Your task to perform on an android device: set an alarm Image 0: 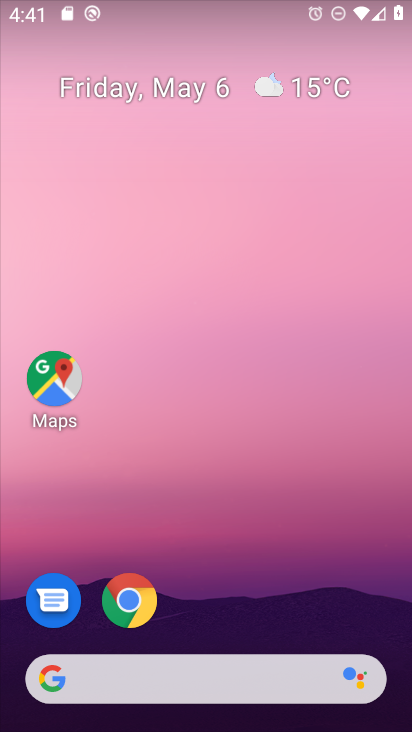
Step 0: drag from (239, 626) to (313, 181)
Your task to perform on an android device: set an alarm Image 1: 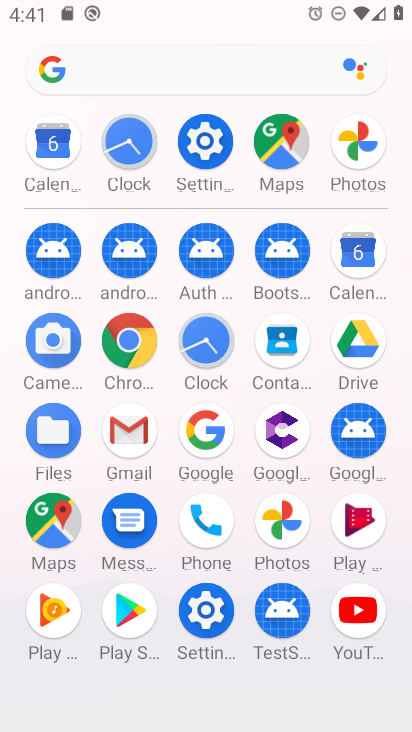
Step 1: click (201, 355)
Your task to perform on an android device: set an alarm Image 2: 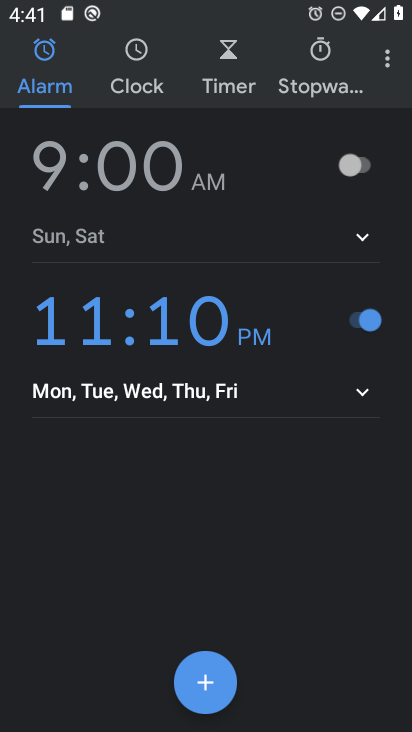
Step 2: click (150, 179)
Your task to perform on an android device: set an alarm Image 3: 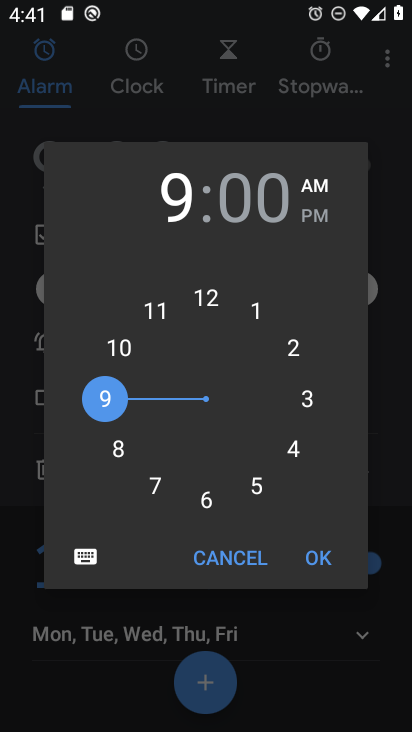
Step 3: drag from (120, 443) to (265, 488)
Your task to perform on an android device: set an alarm Image 4: 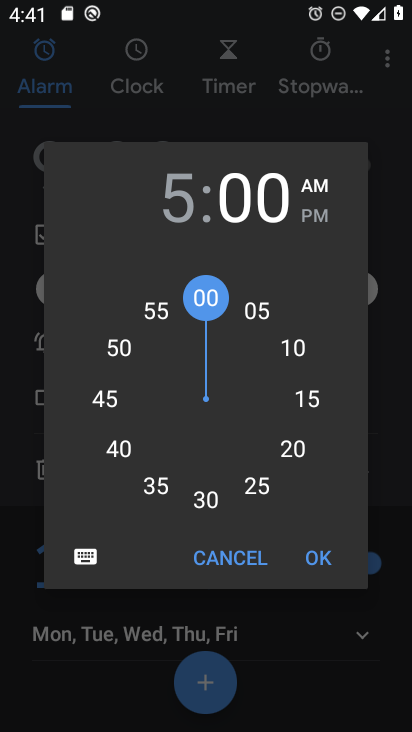
Step 4: drag from (209, 282) to (303, 409)
Your task to perform on an android device: set an alarm Image 5: 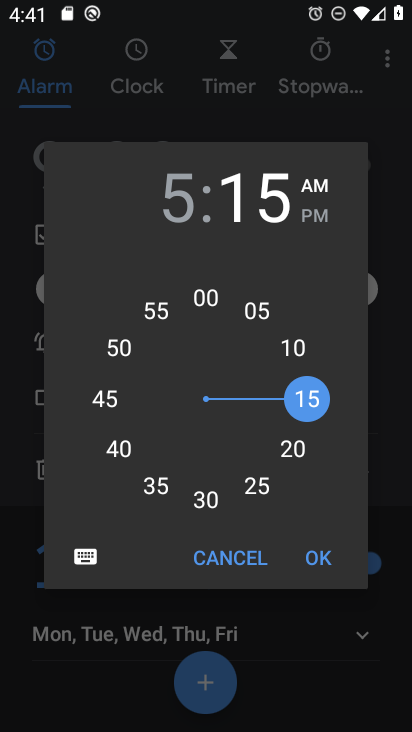
Step 5: click (302, 215)
Your task to perform on an android device: set an alarm Image 6: 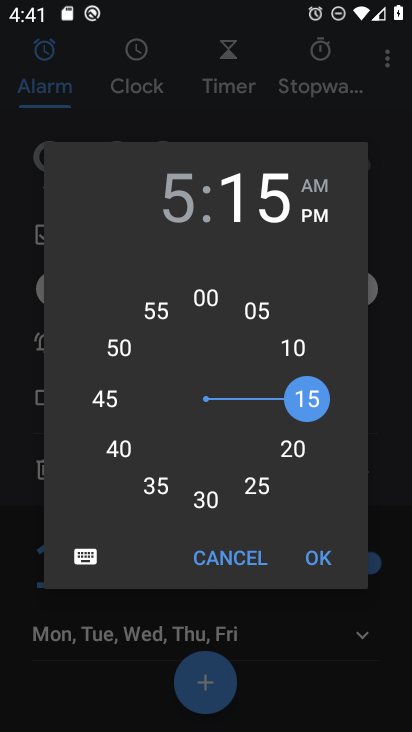
Step 6: click (318, 218)
Your task to perform on an android device: set an alarm Image 7: 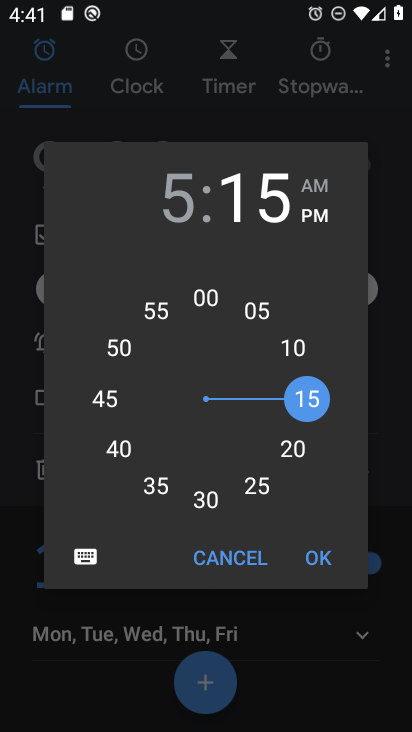
Step 7: click (319, 219)
Your task to perform on an android device: set an alarm Image 8: 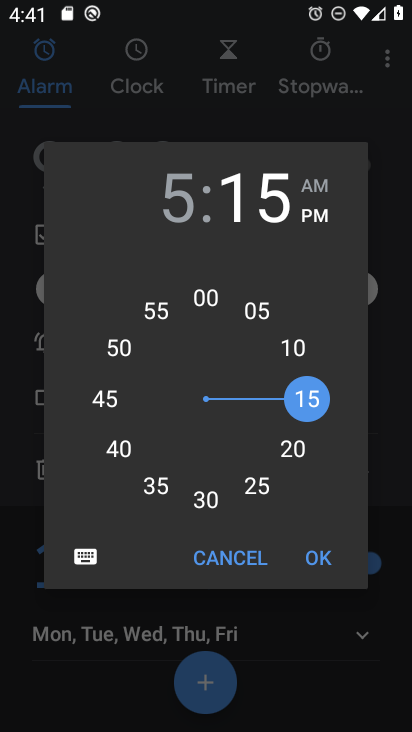
Step 8: click (329, 549)
Your task to perform on an android device: set an alarm Image 9: 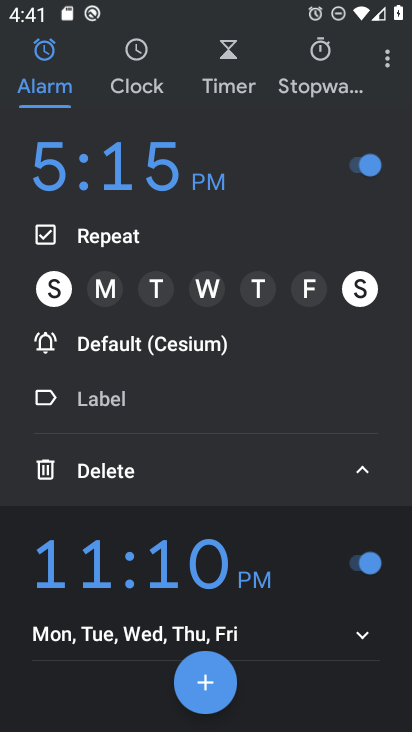
Step 9: task complete